Your task to perform on an android device: Search for "usb-c to usb-b" on bestbuy, select the first entry, add it to the cart, then select checkout. Image 0: 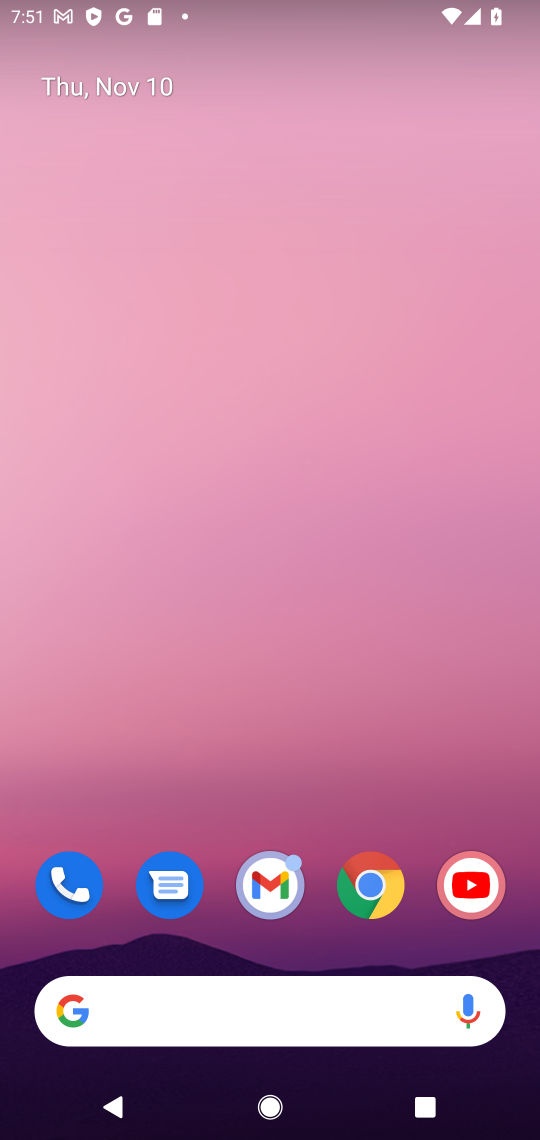
Step 0: click (380, 872)
Your task to perform on an android device: Search for "usb-c to usb-b" on bestbuy, select the first entry, add it to the cart, then select checkout. Image 1: 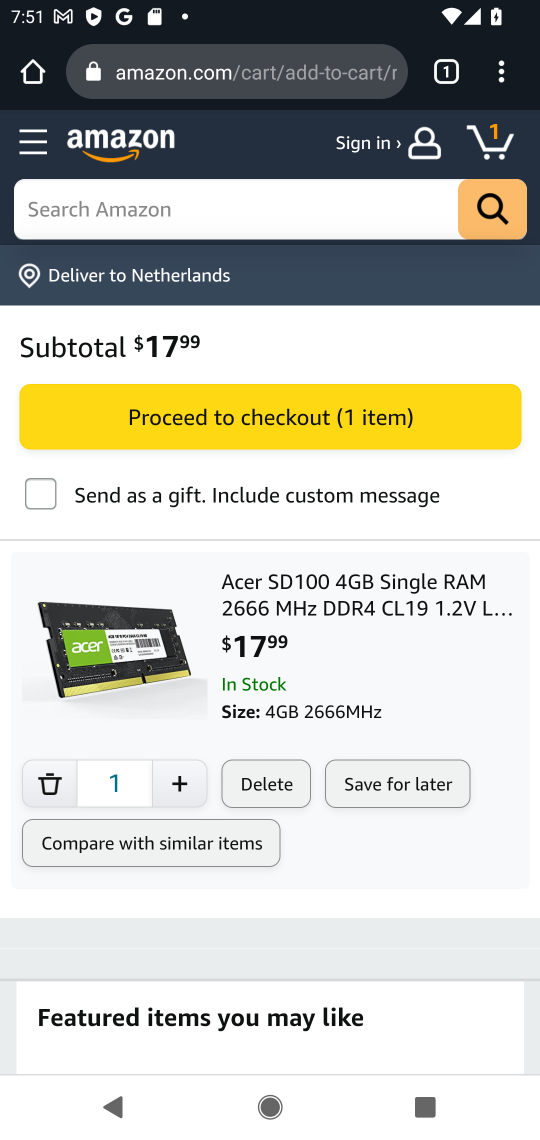
Step 1: click (280, 81)
Your task to perform on an android device: Search for "usb-c to usb-b" on bestbuy, select the first entry, add it to the cart, then select checkout. Image 2: 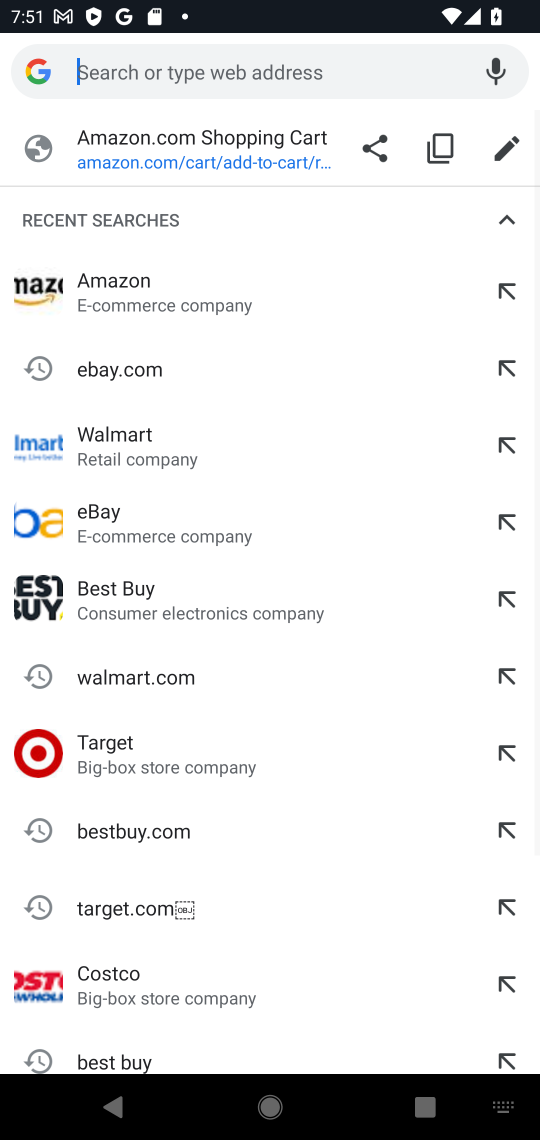
Step 2: type "bestbuy"
Your task to perform on an android device: Search for "usb-c to usb-b" on bestbuy, select the first entry, add it to the cart, then select checkout. Image 3: 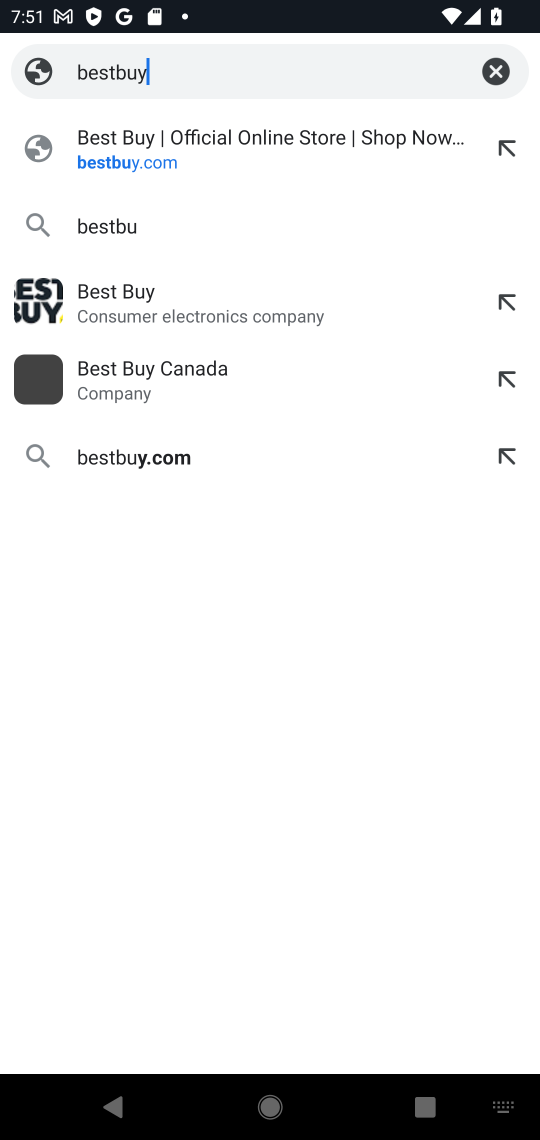
Step 3: press enter
Your task to perform on an android device: Search for "usb-c to usb-b" on bestbuy, select the first entry, add it to the cart, then select checkout. Image 4: 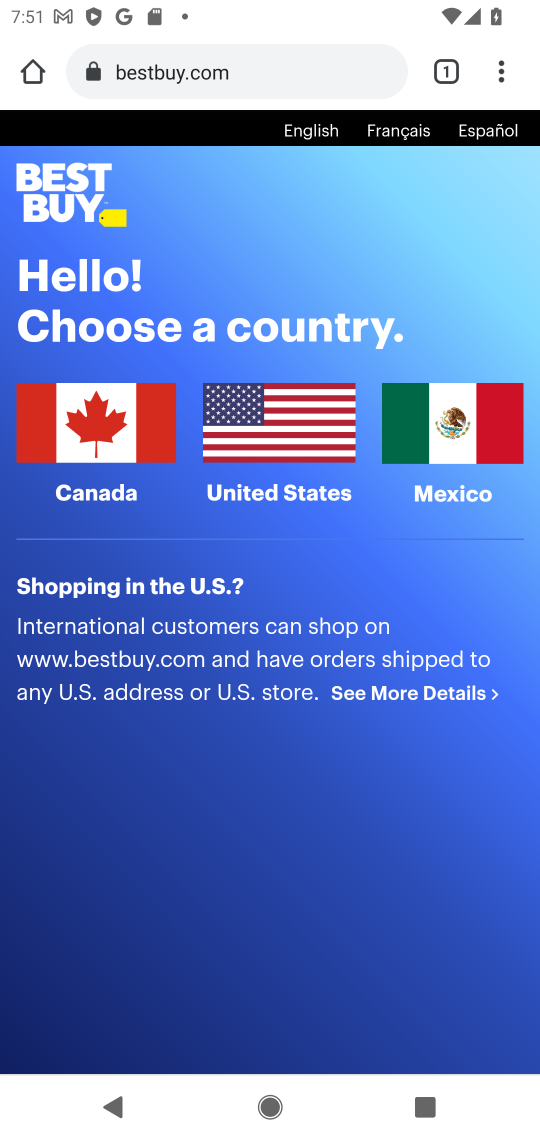
Step 4: click (259, 412)
Your task to perform on an android device: Search for "usb-c to usb-b" on bestbuy, select the first entry, add it to the cart, then select checkout. Image 5: 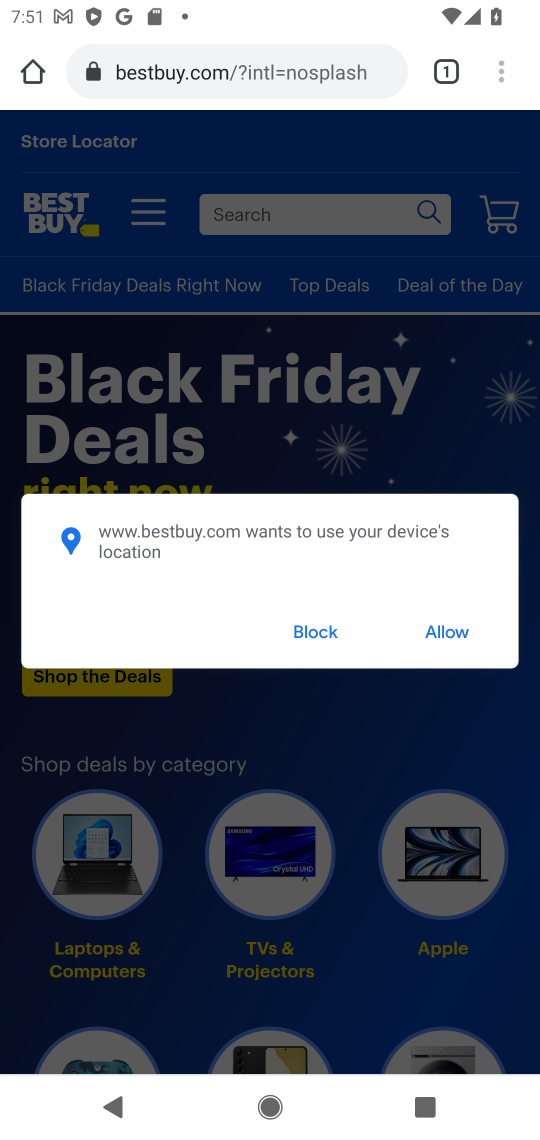
Step 5: click (326, 635)
Your task to perform on an android device: Search for "usb-c to usb-b" on bestbuy, select the first entry, add it to the cart, then select checkout. Image 6: 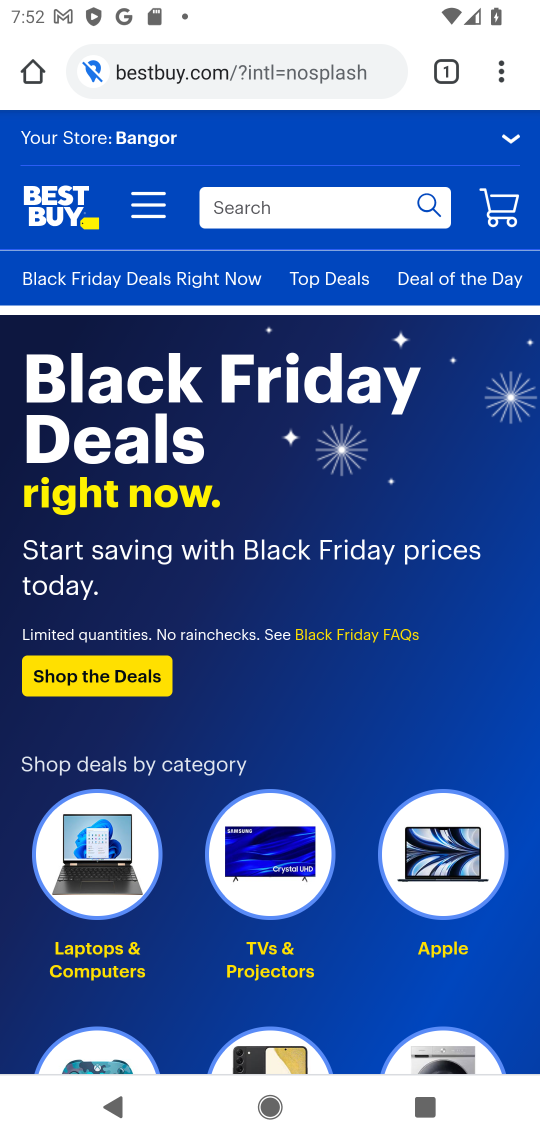
Step 6: click (276, 206)
Your task to perform on an android device: Search for "usb-c to usb-b" on bestbuy, select the first entry, add it to the cart, then select checkout. Image 7: 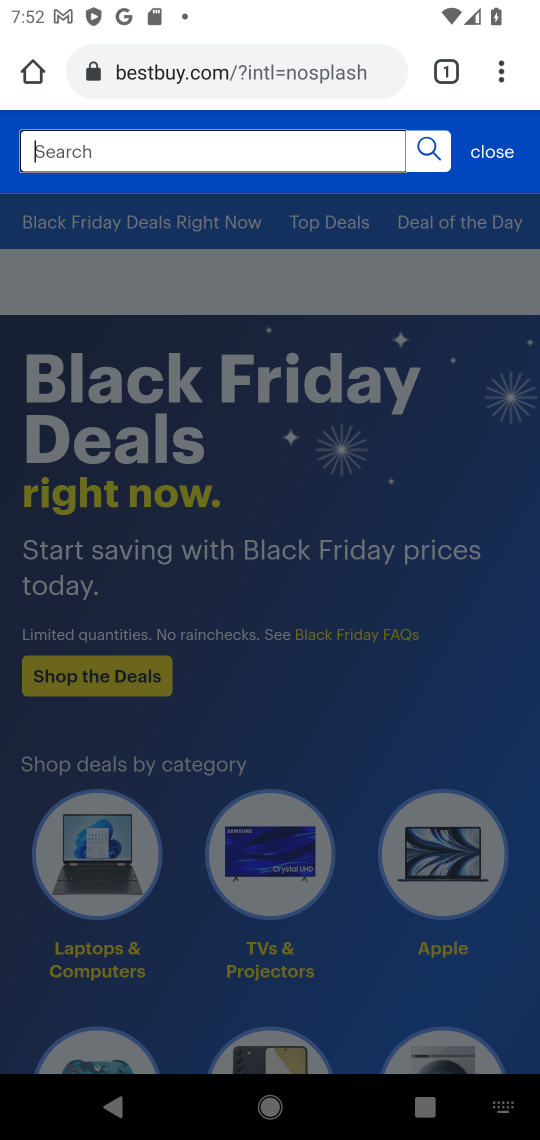
Step 7: type "usb-c to usb-b"
Your task to perform on an android device: Search for "usb-c to usb-b" on bestbuy, select the first entry, add it to the cart, then select checkout. Image 8: 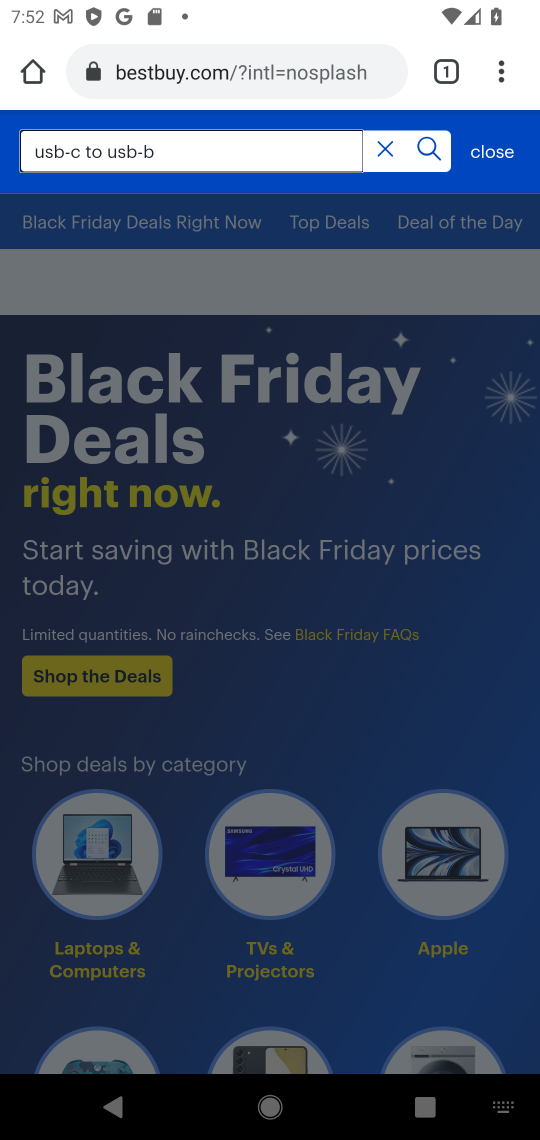
Step 8: click (419, 143)
Your task to perform on an android device: Search for "usb-c to usb-b" on bestbuy, select the first entry, add it to the cart, then select checkout. Image 9: 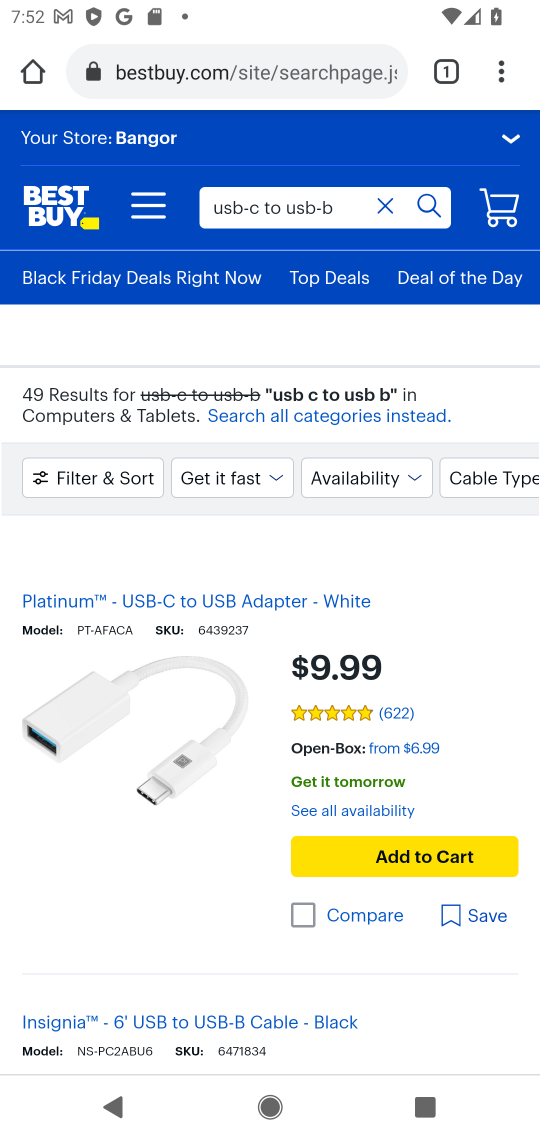
Step 9: task complete